Your task to perform on an android device: Open the phone app and click the voicemail tab. Image 0: 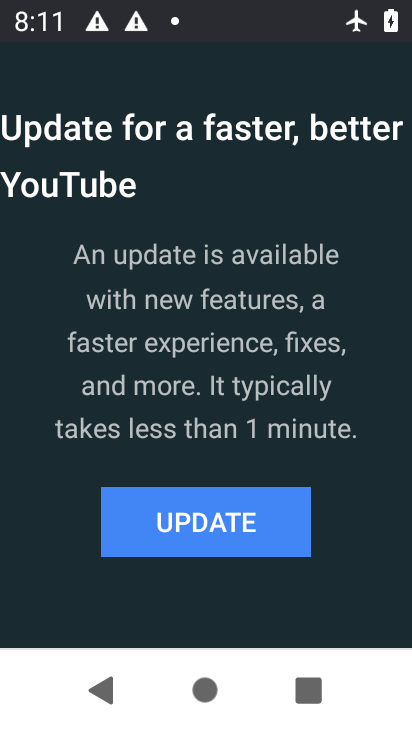
Step 0: press home button
Your task to perform on an android device: Open the phone app and click the voicemail tab. Image 1: 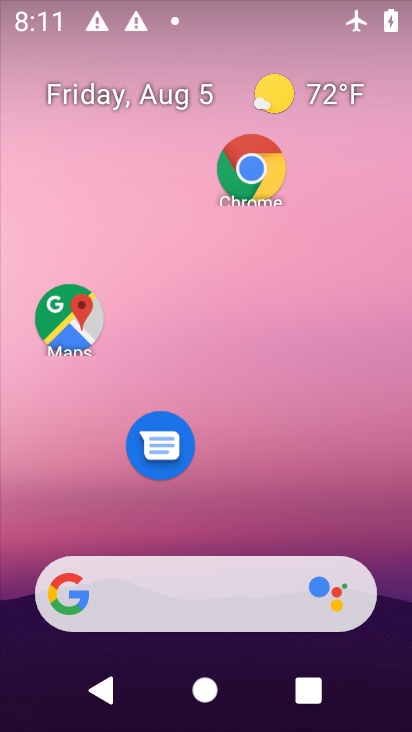
Step 1: drag from (223, 529) to (223, 134)
Your task to perform on an android device: Open the phone app and click the voicemail tab. Image 2: 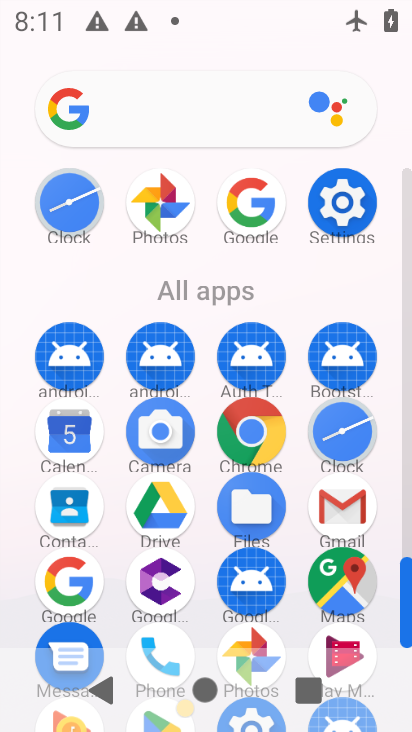
Step 2: drag from (122, 528) to (124, 306)
Your task to perform on an android device: Open the phone app and click the voicemail tab. Image 3: 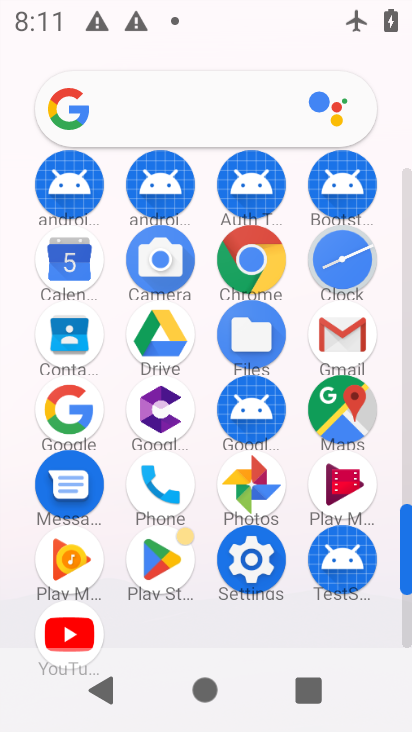
Step 3: click (151, 482)
Your task to perform on an android device: Open the phone app and click the voicemail tab. Image 4: 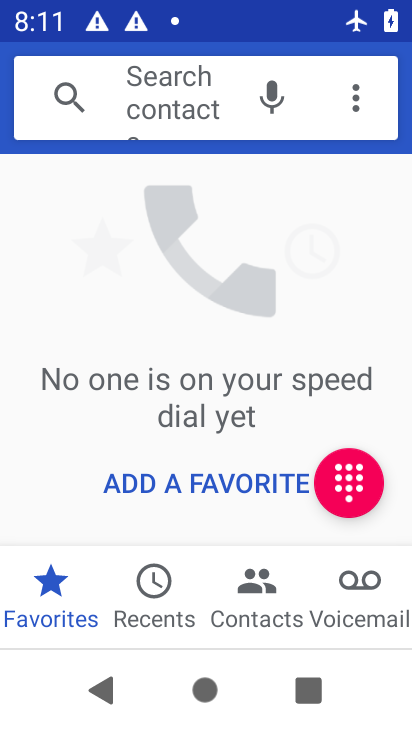
Step 4: click (356, 595)
Your task to perform on an android device: Open the phone app and click the voicemail tab. Image 5: 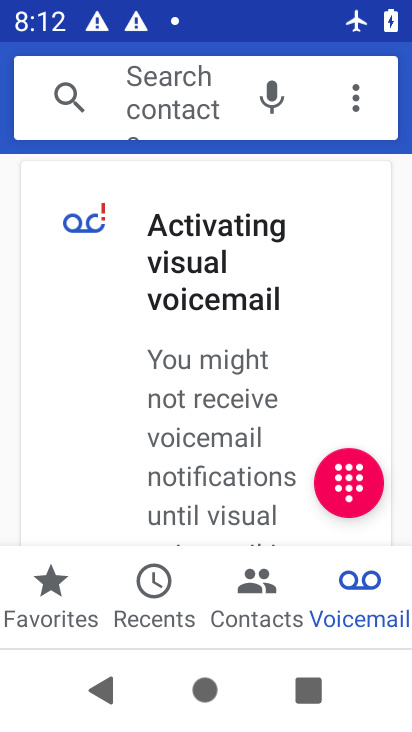
Step 5: task complete